Your task to perform on an android device: find snoozed emails in the gmail app Image 0: 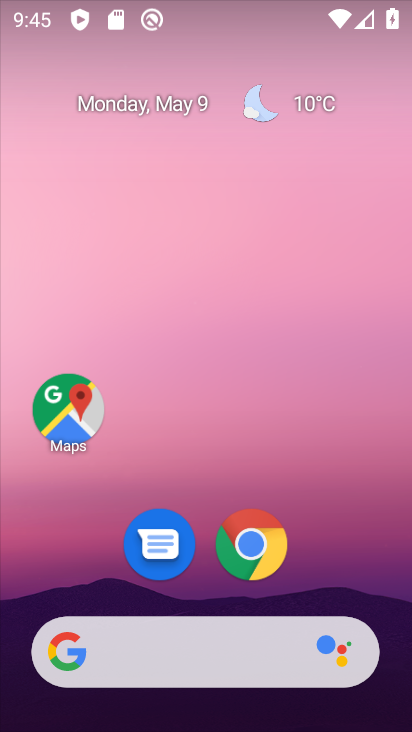
Step 0: drag from (398, 661) to (341, 315)
Your task to perform on an android device: find snoozed emails in the gmail app Image 1: 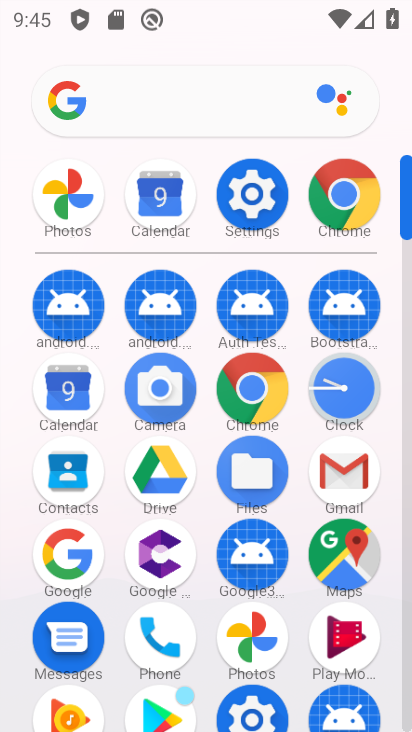
Step 1: click (342, 474)
Your task to perform on an android device: find snoozed emails in the gmail app Image 2: 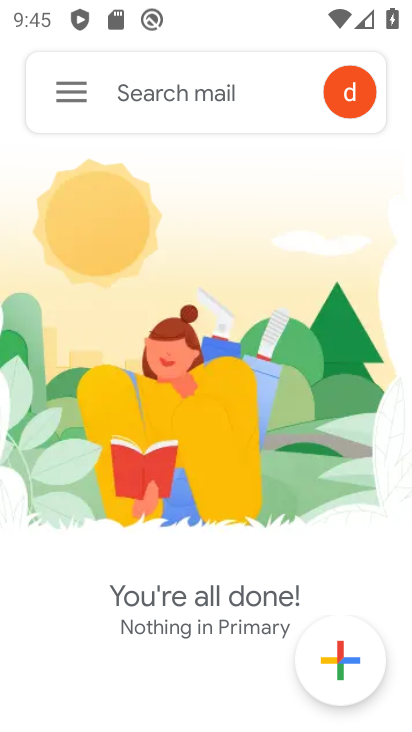
Step 2: click (80, 87)
Your task to perform on an android device: find snoozed emails in the gmail app Image 3: 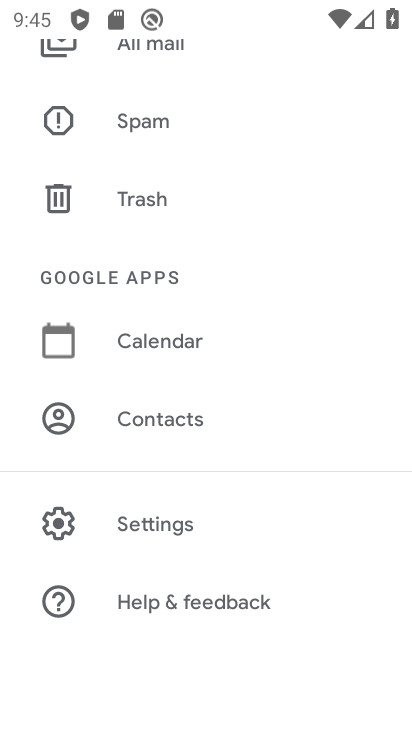
Step 3: drag from (298, 167) to (342, 673)
Your task to perform on an android device: find snoozed emails in the gmail app Image 4: 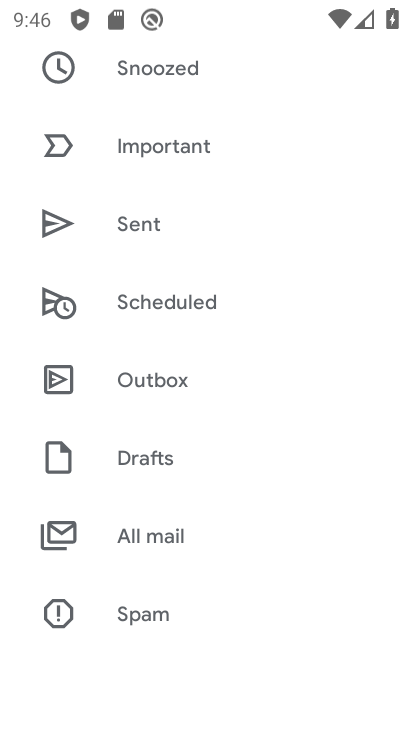
Step 4: drag from (309, 209) to (308, 515)
Your task to perform on an android device: find snoozed emails in the gmail app Image 5: 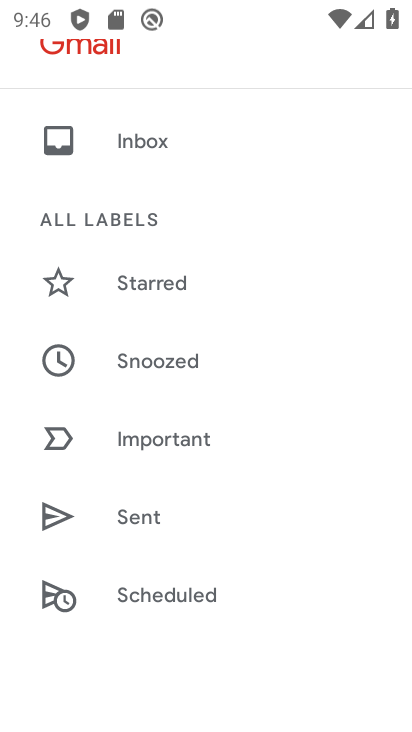
Step 5: click (163, 364)
Your task to perform on an android device: find snoozed emails in the gmail app Image 6: 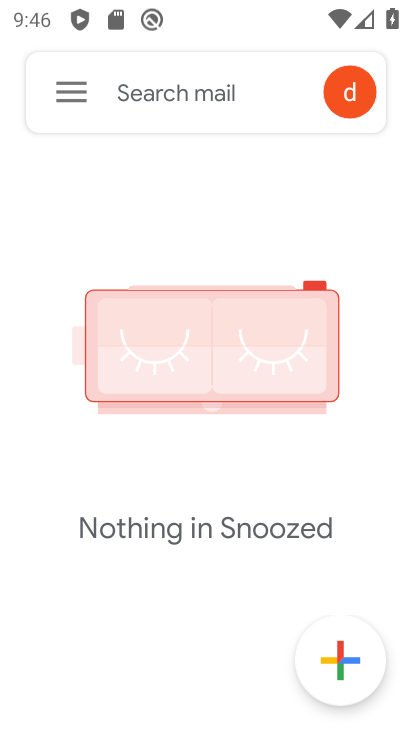
Step 6: task complete